Your task to perform on an android device: turn off data saver in the chrome app Image 0: 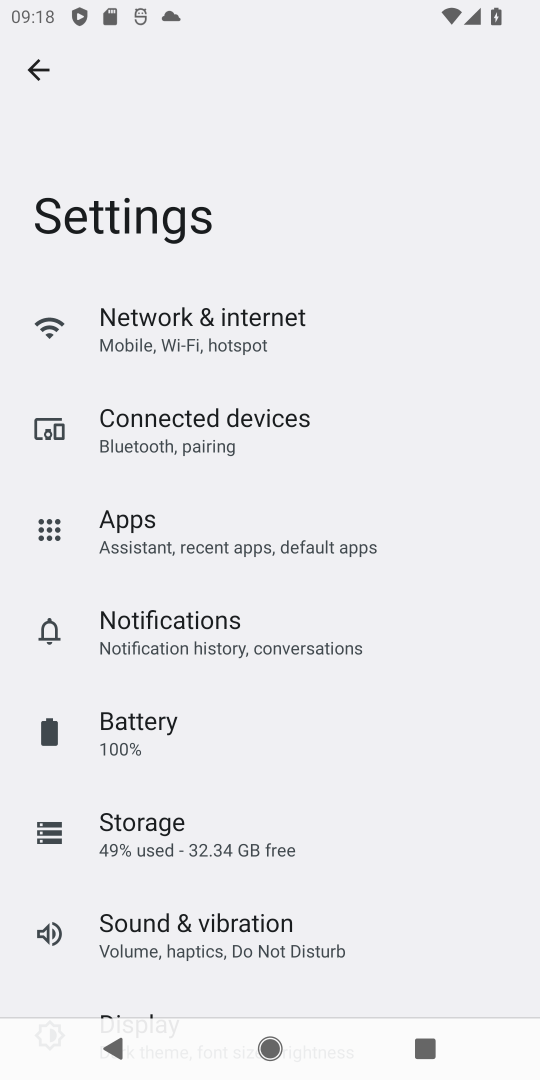
Step 0: press home button
Your task to perform on an android device: turn off data saver in the chrome app Image 1: 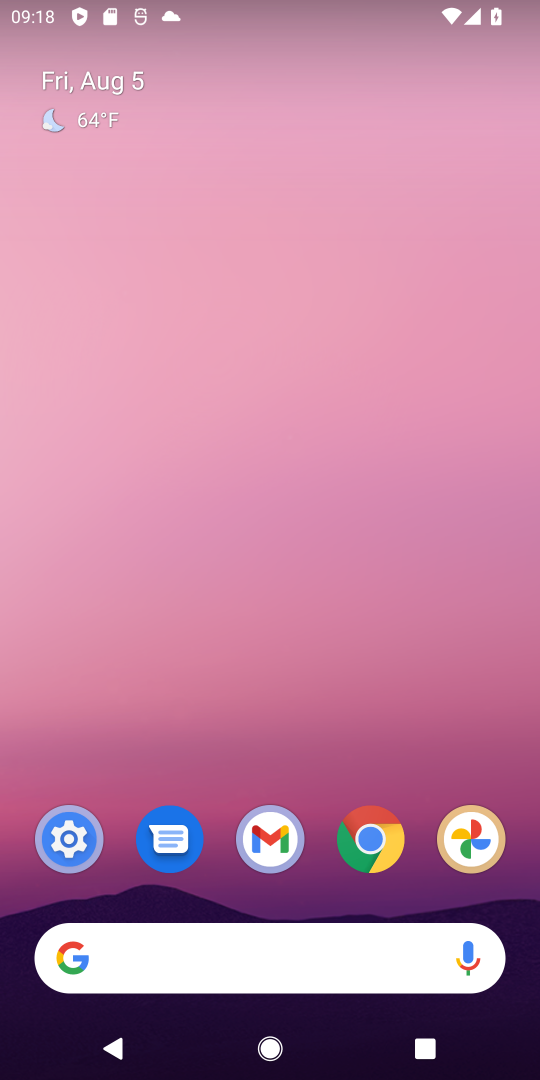
Step 1: drag from (345, 843) to (366, 347)
Your task to perform on an android device: turn off data saver in the chrome app Image 2: 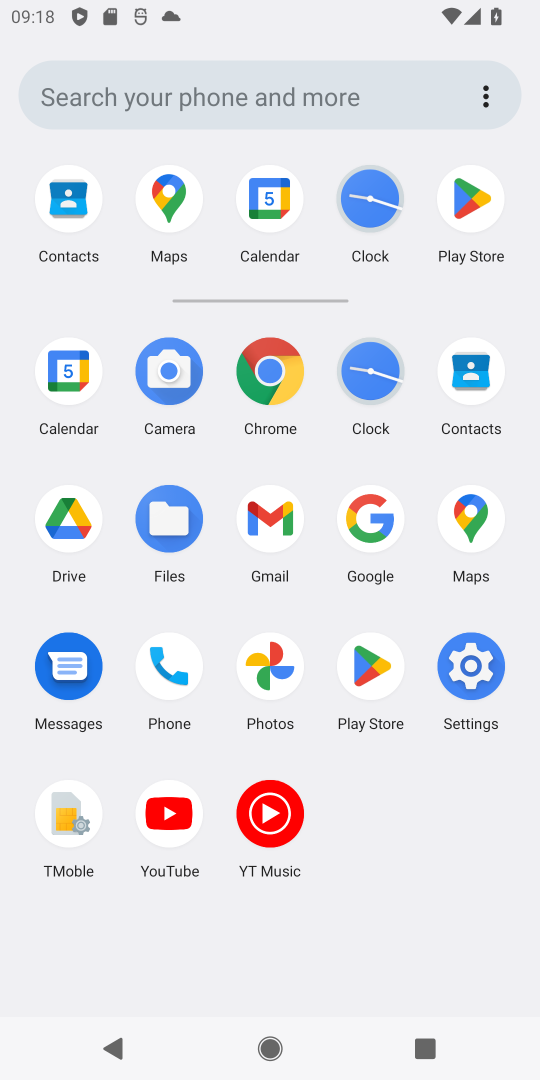
Step 2: click (273, 373)
Your task to perform on an android device: turn off data saver in the chrome app Image 3: 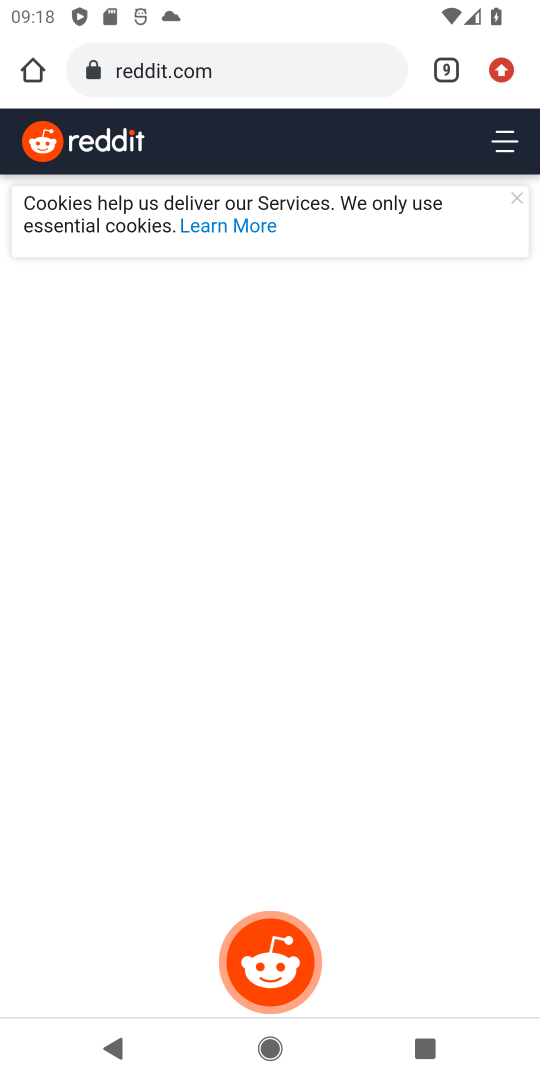
Step 3: click (501, 73)
Your task to perform on an android device: turn off data saver in the chrome app Image 4: 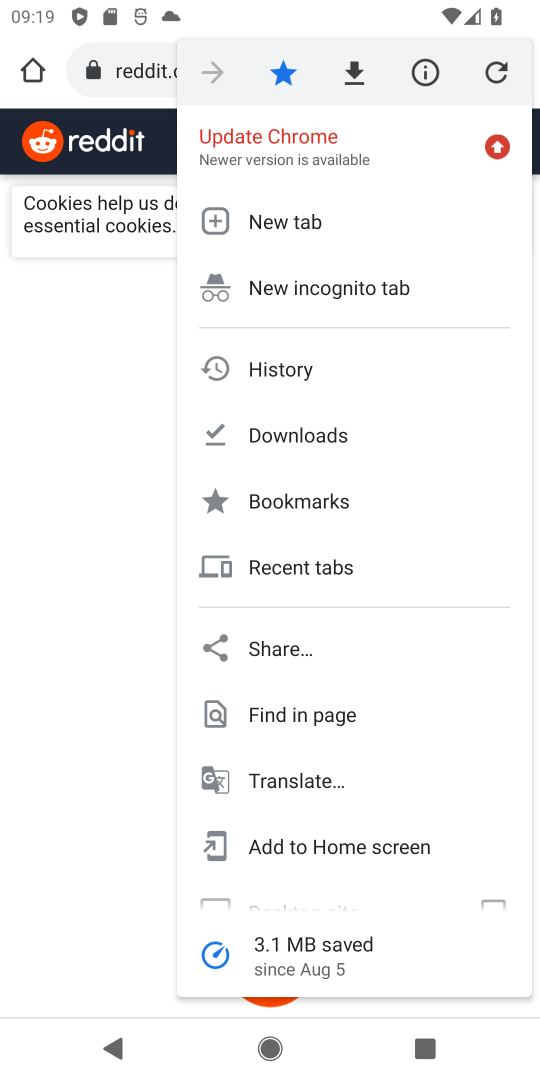
Step 4: drag from (308, 849) to (272, 501)
Your task to perform on an android device: turn off data saver in the chrome app Image 5: 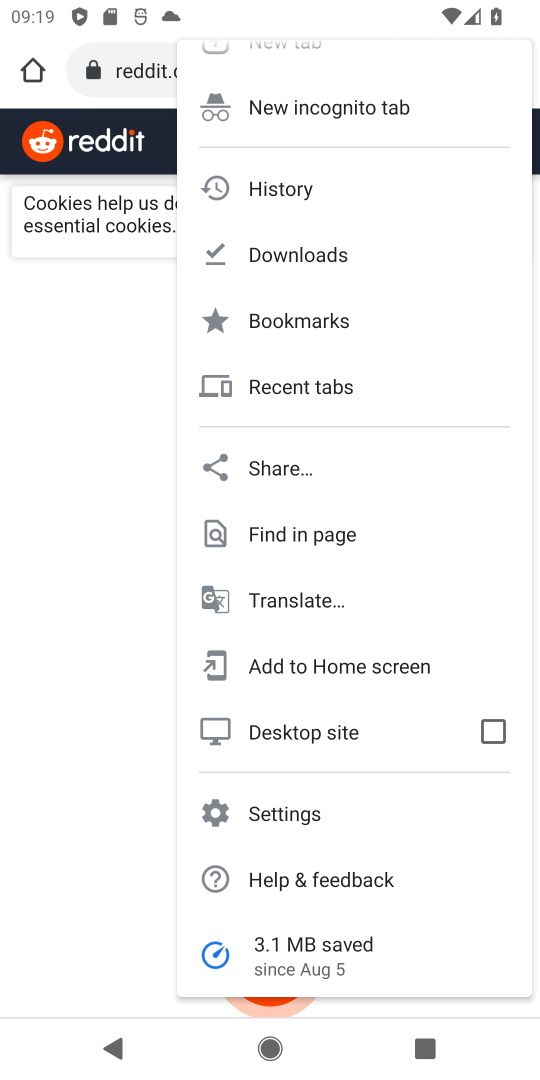
Step 5: click (290, 813)
Your task to perform on an android device: turn off data saver in the chrome app Image 6: 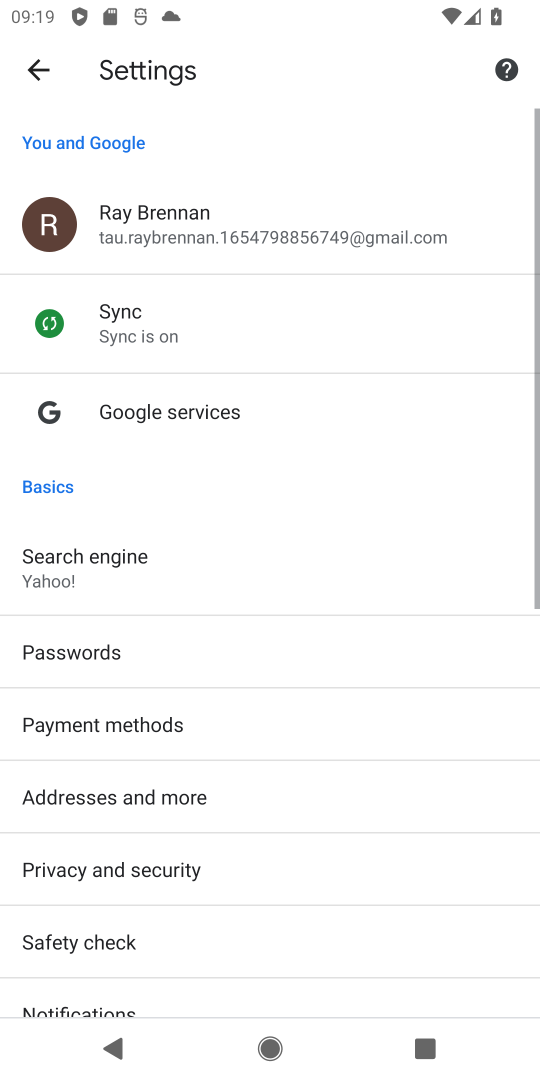
Step 6: drag from (224, 799) to (227, 411)
Your task to perform on an android device: turn off data saver in the chrome app Image 7: 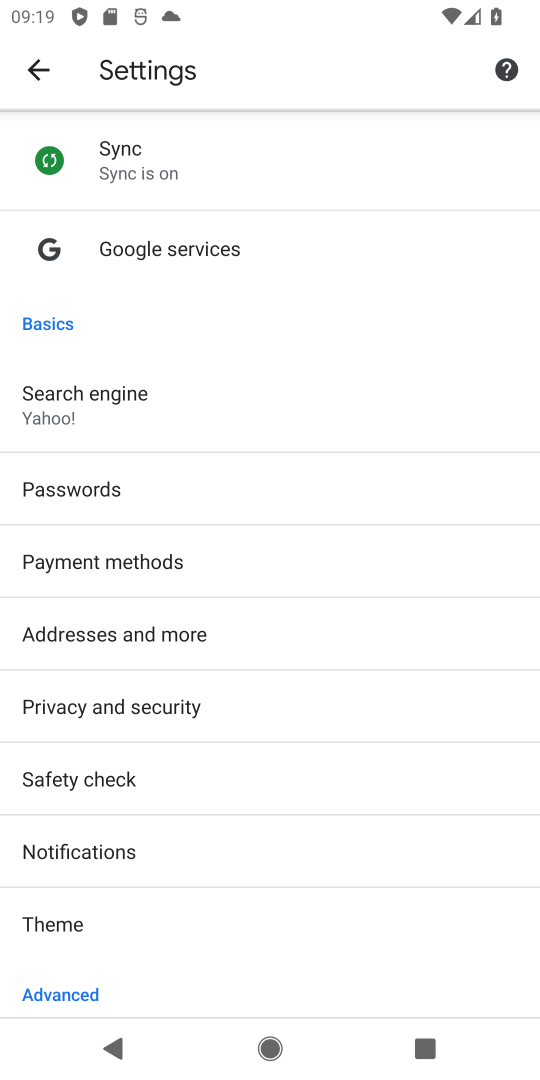
Step 7: drag from (131, 907) to (154, 523)
Your task to perform on an android device: turn off data saver in the chrome app Image 8: 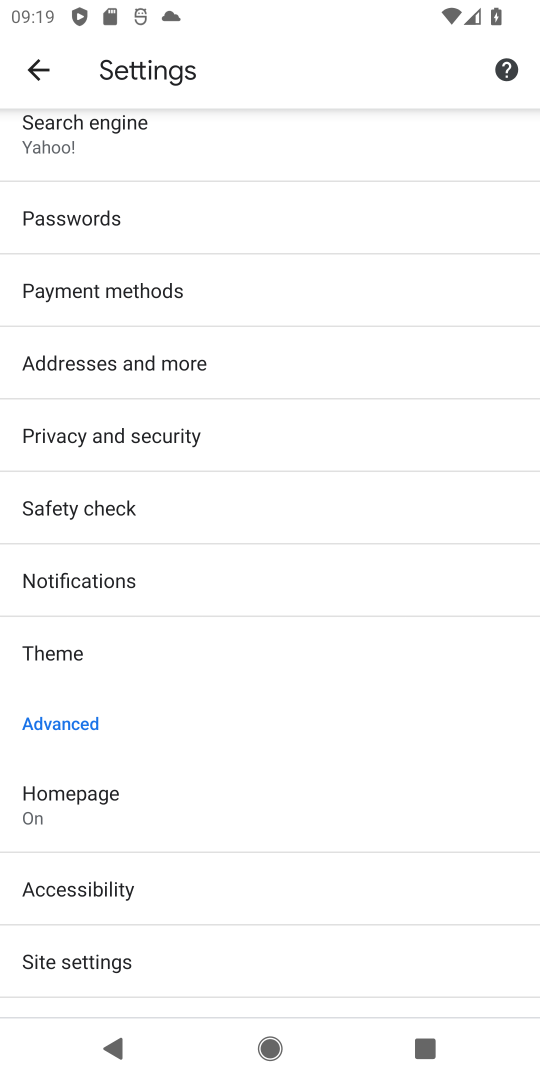
Step 8: drag from (121, 921) to (136, 498)
Your task to perform on an android device: turn off data saver in the chrome app Image 9: 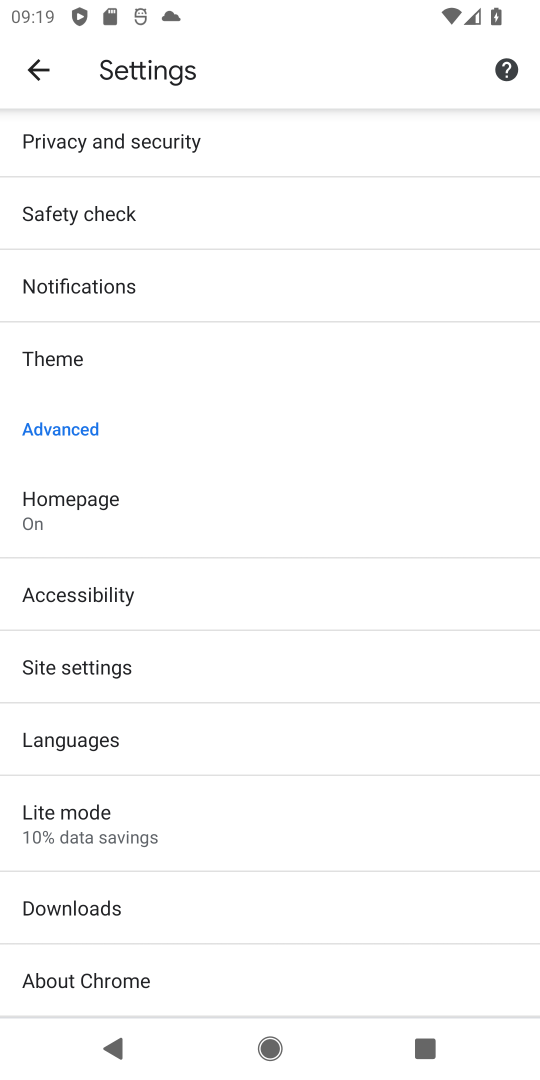
Step 9: click (84, 819)
Your task to perform on an android device: turn off data saver in the chrome app Image 10: 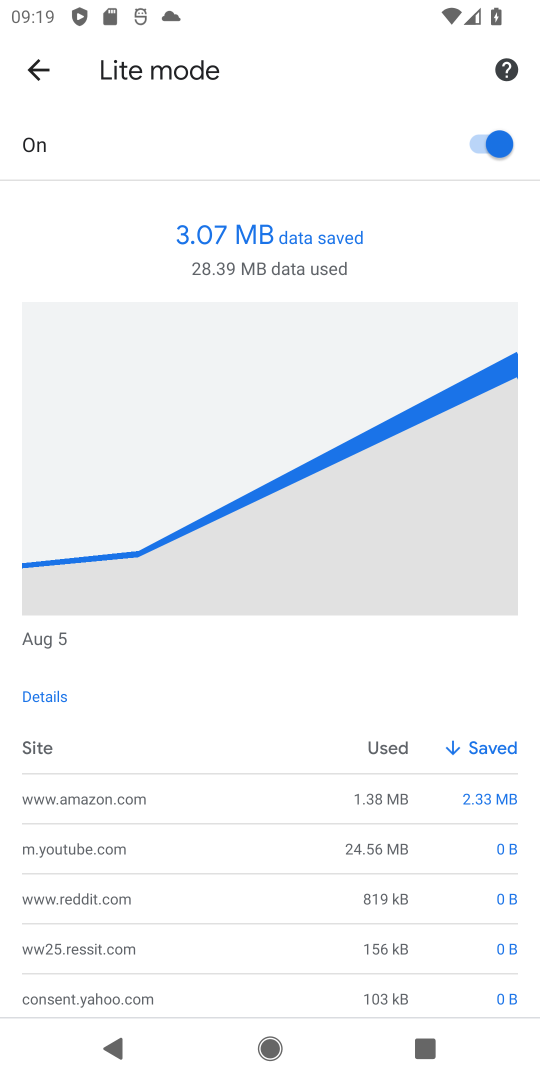
Step 10: click (489, 136)
Your task to perform on an android device: turn off data saver in the chrome app Image 11: 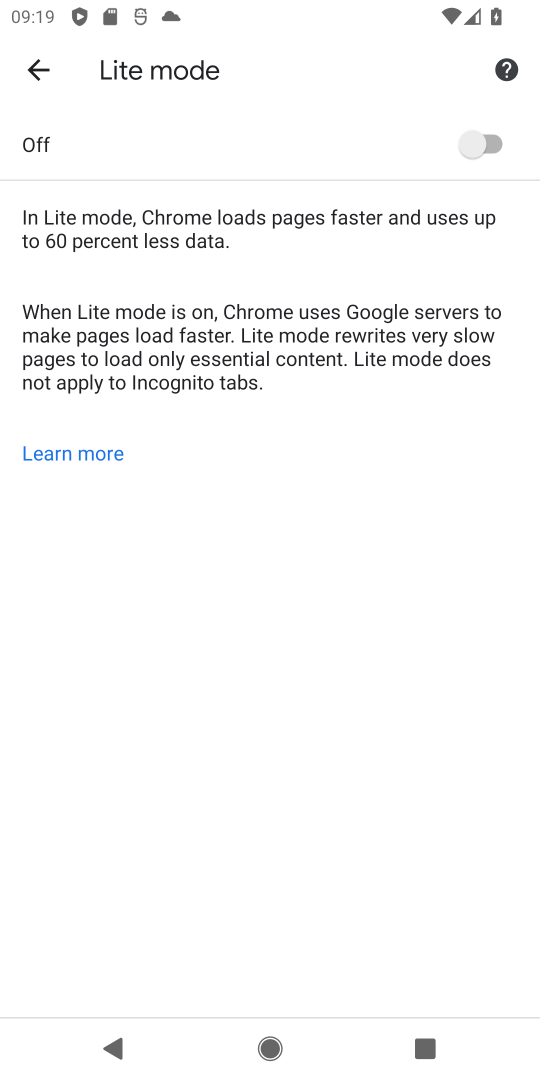
Step 11: task complete